Your task to perform on an android device: set default search engine in the chrome app Image 0: 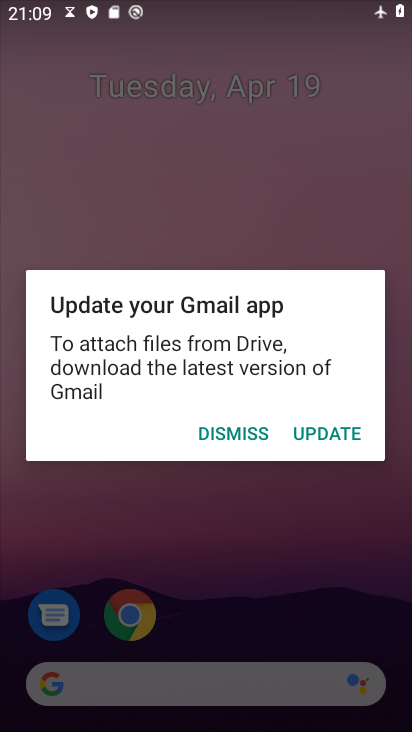
Step 0: press back button
Your task to perform on an android device: set default search engine in the chrome app Image 1: 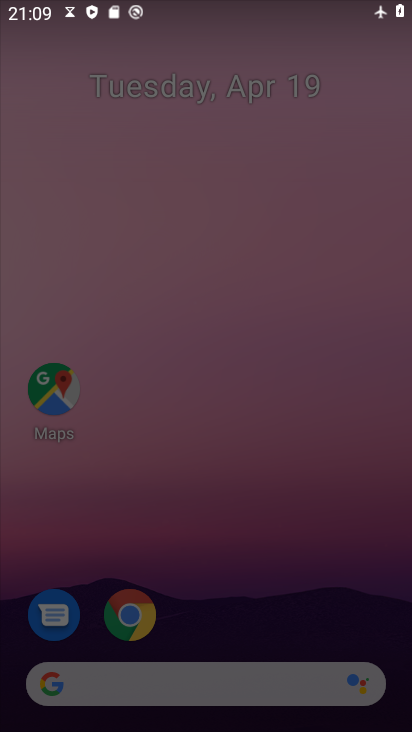
Step 1: press back button
Your task to perform on an android device: set default search engine in the chrome app Image 2: 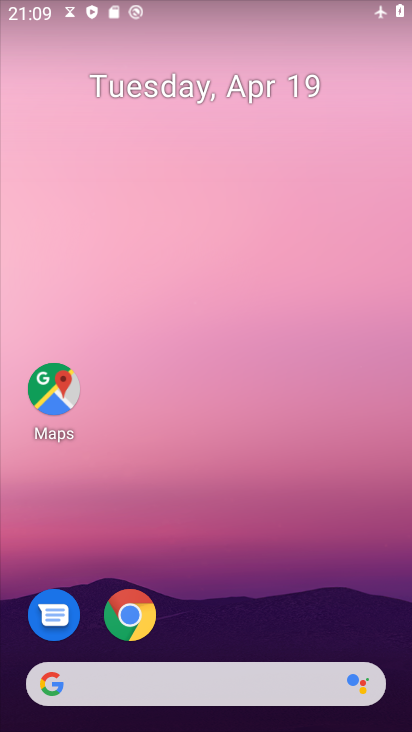
Step 2: drag from (317, 609) to (317, 28)
Your task to perform on an android device: set default search engine in the chrome app Image 3: 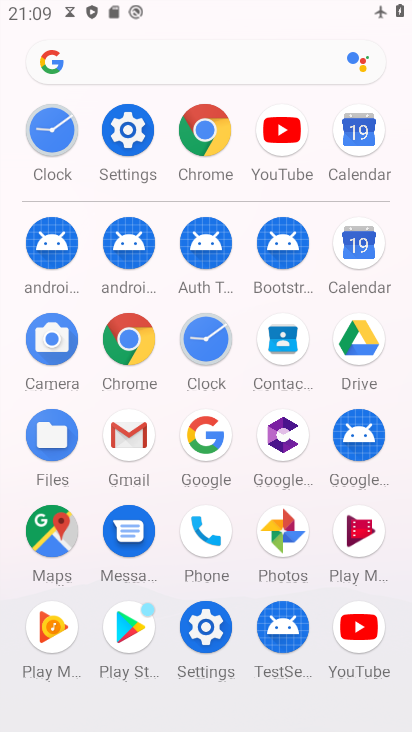
Step 3: click (122, 339)
Your task to perform on an android device: set default search engine in the chrome app Image 4: 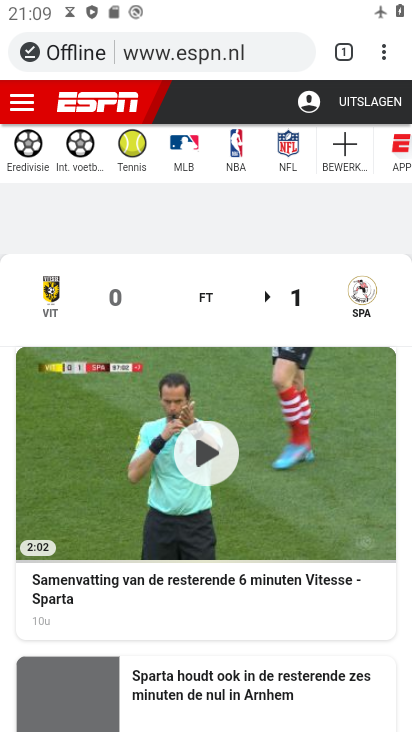
Step 4: drag from (379, 53) to (240, 640)
Your task to perform on an android device: set default search engine in the chrome app Image 5: 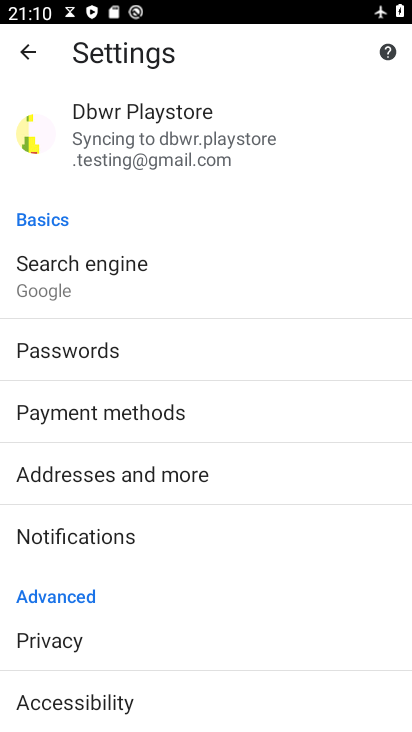
Step 5: click (119, 286)
Your task to perform on an android device: set default search engine in the chrome app Image 6: 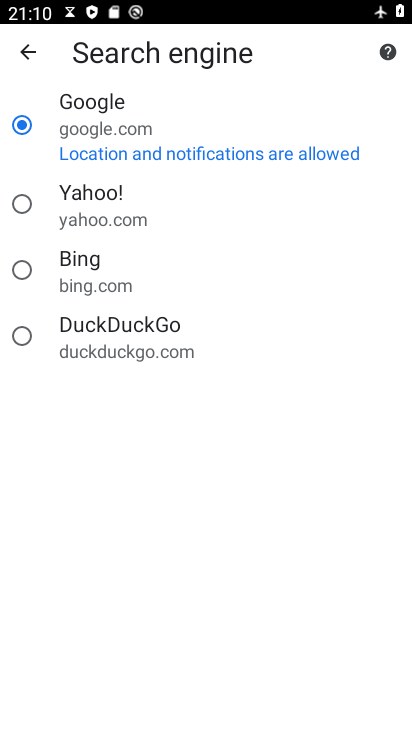
Step 6: click (141, 277)
Your task to perform on an android device: set default search engine in the chrome app Image 7: 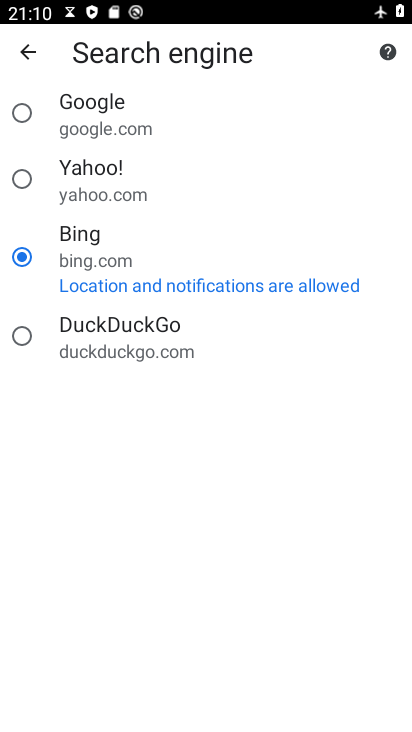
Step 7: task complete